Your task to perform on an android device: show emergency info Image 0: 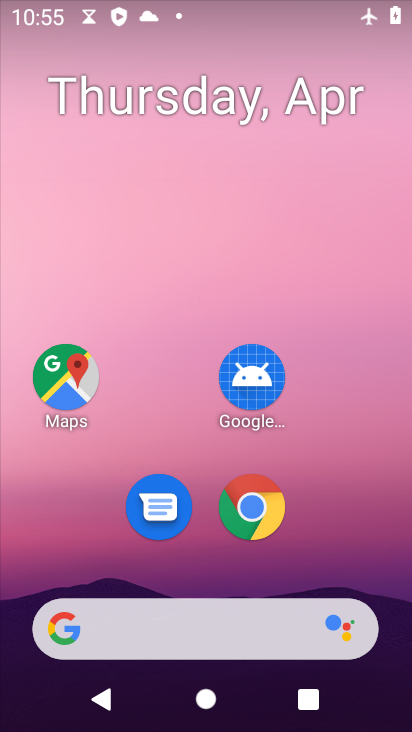
Step 0: drag from (306, 510) to (313, 185)
Your task to perform on an android device: show emergency info Image 1: 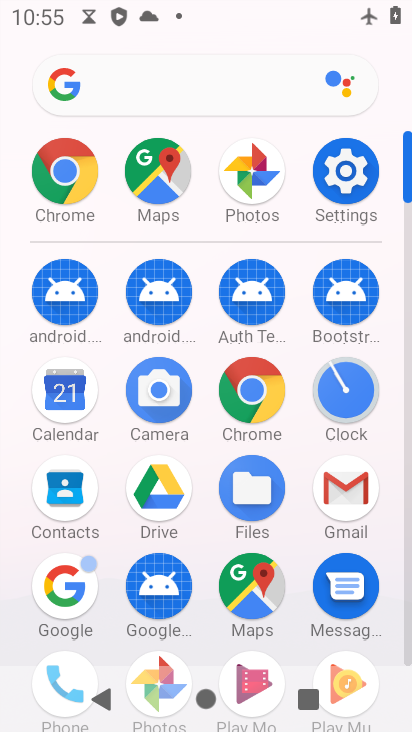
Step 1: click (350, 158)
Your task to perform on an android device: show emergency info Image 2: 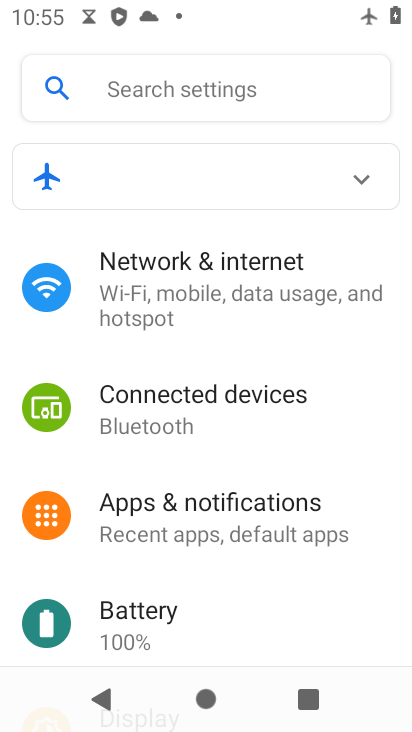
Step 2: drag from (317, 620) to (324, 168)
Your task to perform on an android device: show emergency info Image 3: 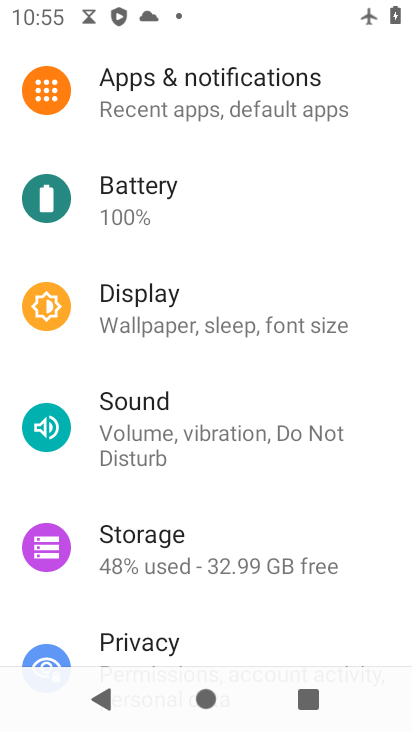
Step 3: drag from (289, 597) to (318, 108)
Your task to perform on an android device: show emergency info Image 4: 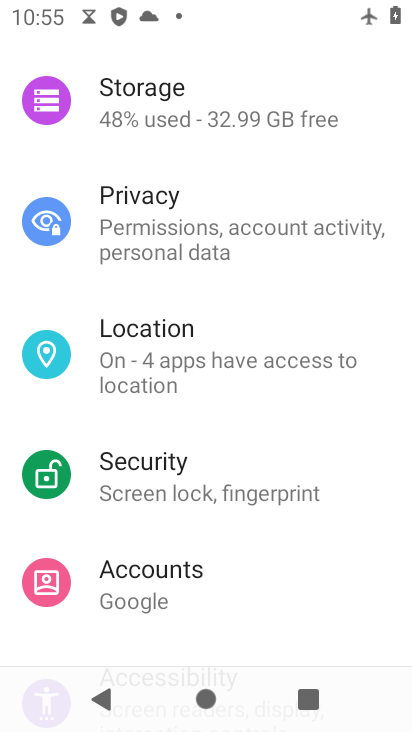
Step 4: drag from (222, 594) to (260, 103)
Your task to perform on an android device: show emergency info Image 5: 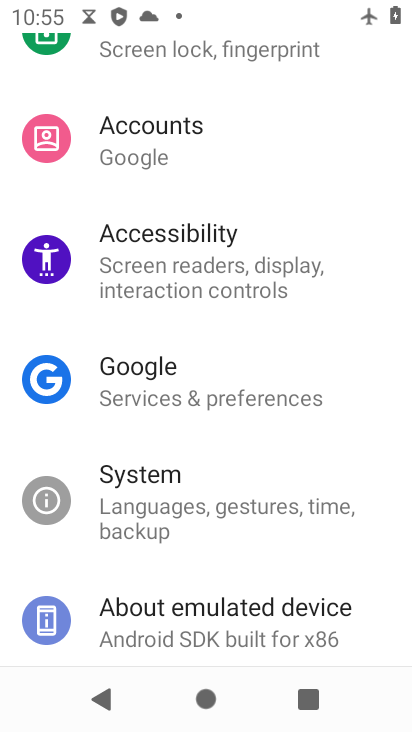
Step 5: drag from (164, 625) to (242, 269)
Your task to perform on an android device: show emergency info Image 6: 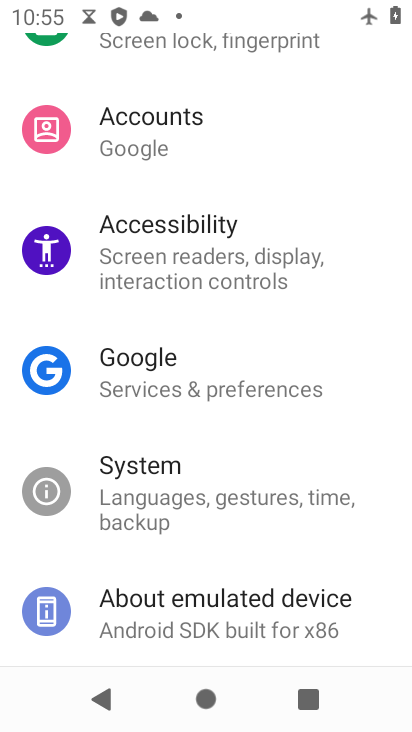
Step 6: click (185, 616)
Your task to perform on an android device: show emergency info Image 7: 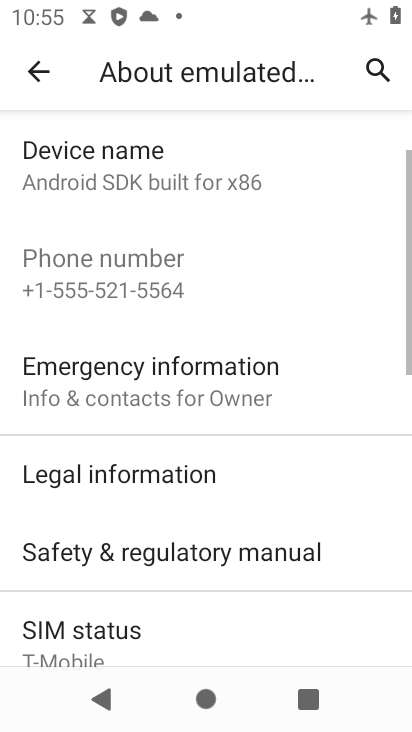
Step 7: click (214, 376)
Your task to perform on an android device: show emergency info Image 8: 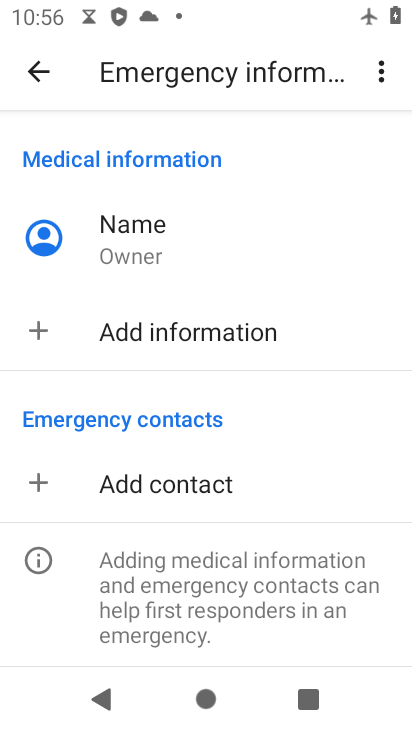
Step 8: task complete